Your task to perform on an android device: When is my next meeting? Image 0: 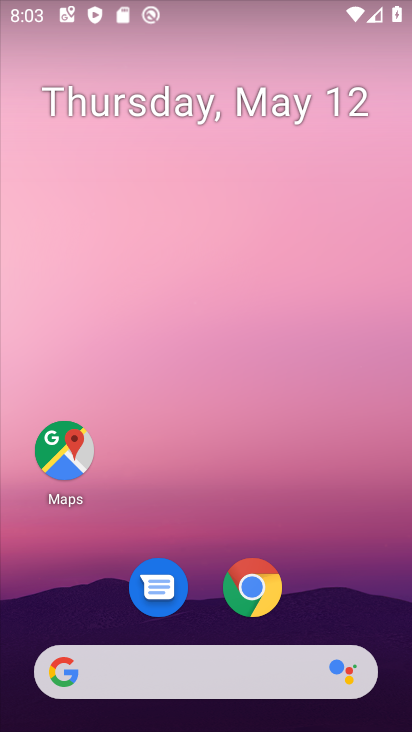
Step 0: drag from (260, 595) to (345, 211)
Your task to perform on an android device: When is my next meeting? Image 1: 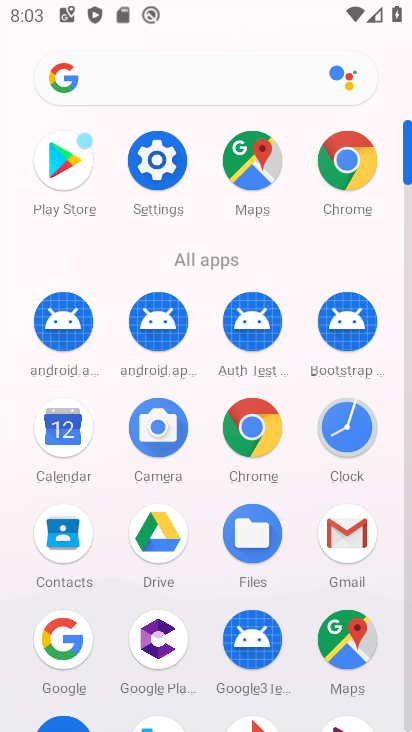
Step 1: click (38, 427)
Your task to perform on an android device: When is my next meeting? Image 2: 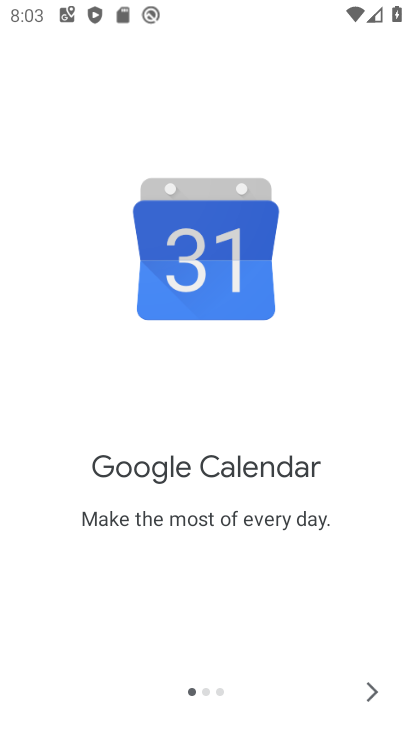
Step 2: click (376, 694)
Your task to perform on an android device: When is my next meeting? Image 3: 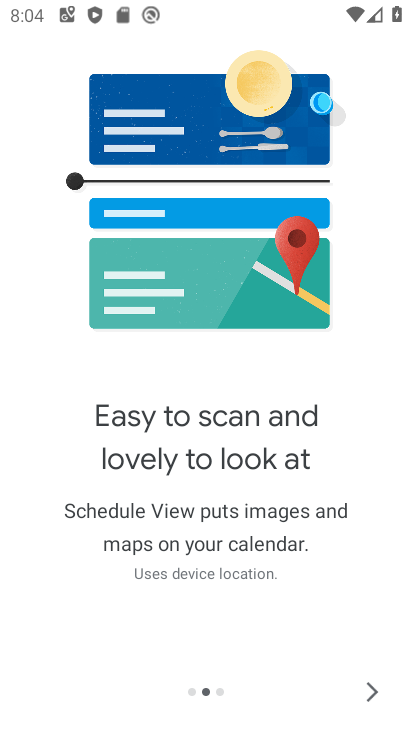
Step 3: click (376, 689)
Your task to perform on an android device: When is my next meeting? Image 4: 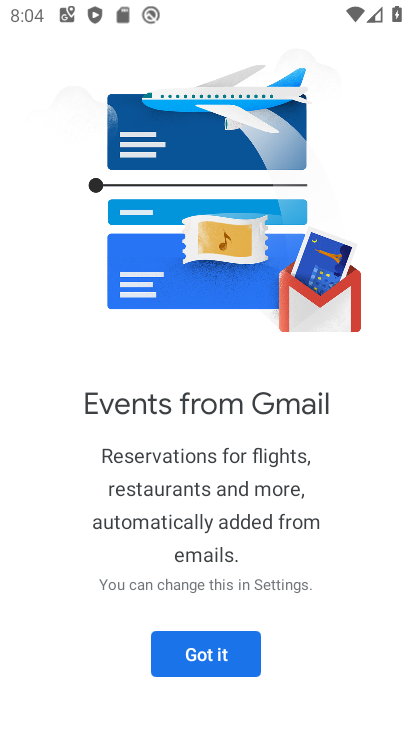
Step 4: click (206, 632)
Your task to perform on an android device: When is my next meeting? Image 5: 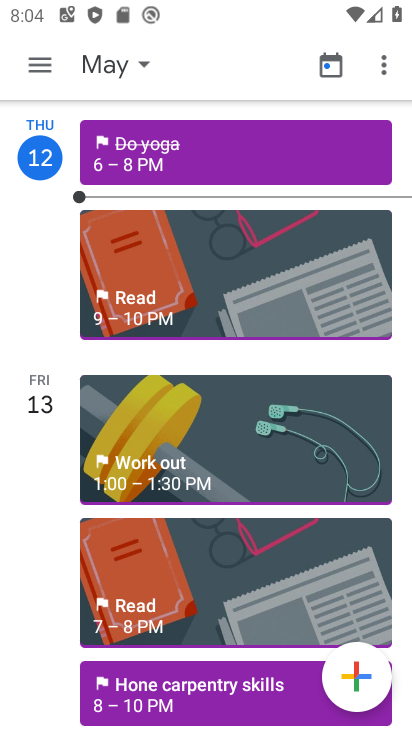
Step 5: click (40, 59)
Your task to perform on an android device: When is my next meeting? Image 6: 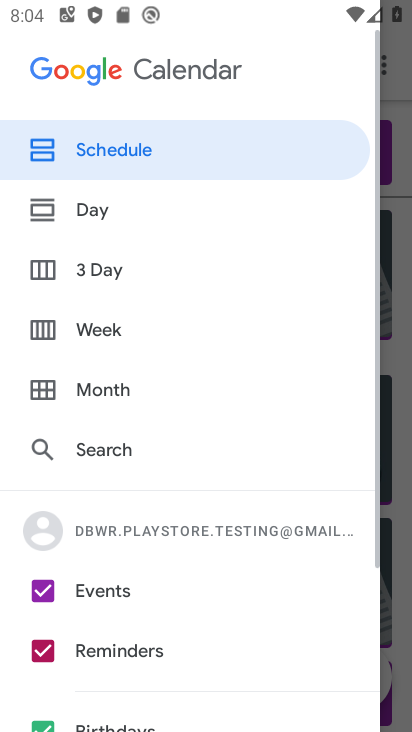
Step 6: click (92, 143)
Your task to perform on an android device: When is my next meeting? Image 7: 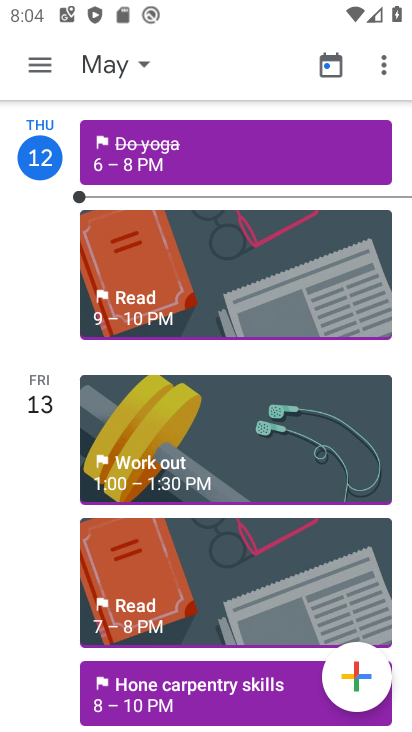
Step 7: task complete